Your task to perform on an android device: Go to network settings Image 0: 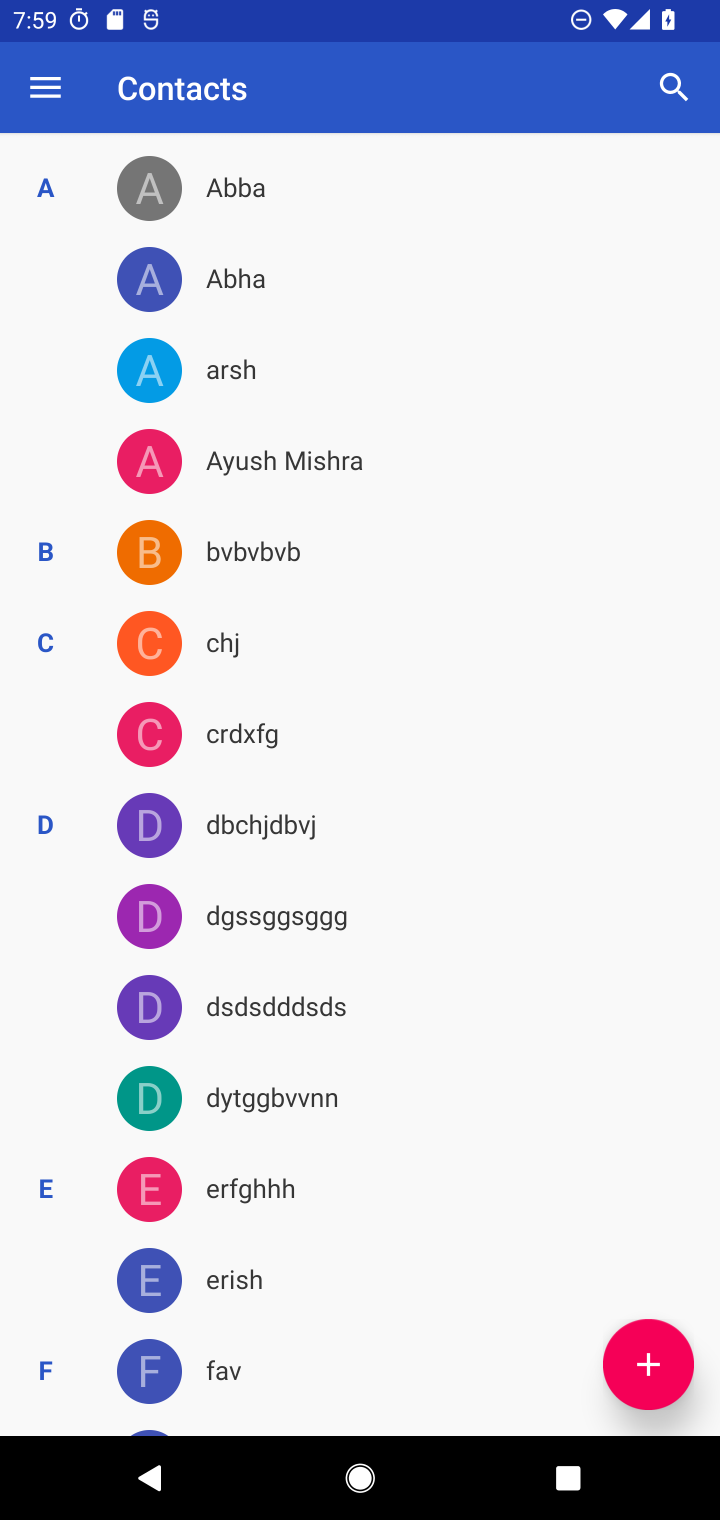
Step 0: press home button
Your task to perform on an android device: Go to network settings Image 1: 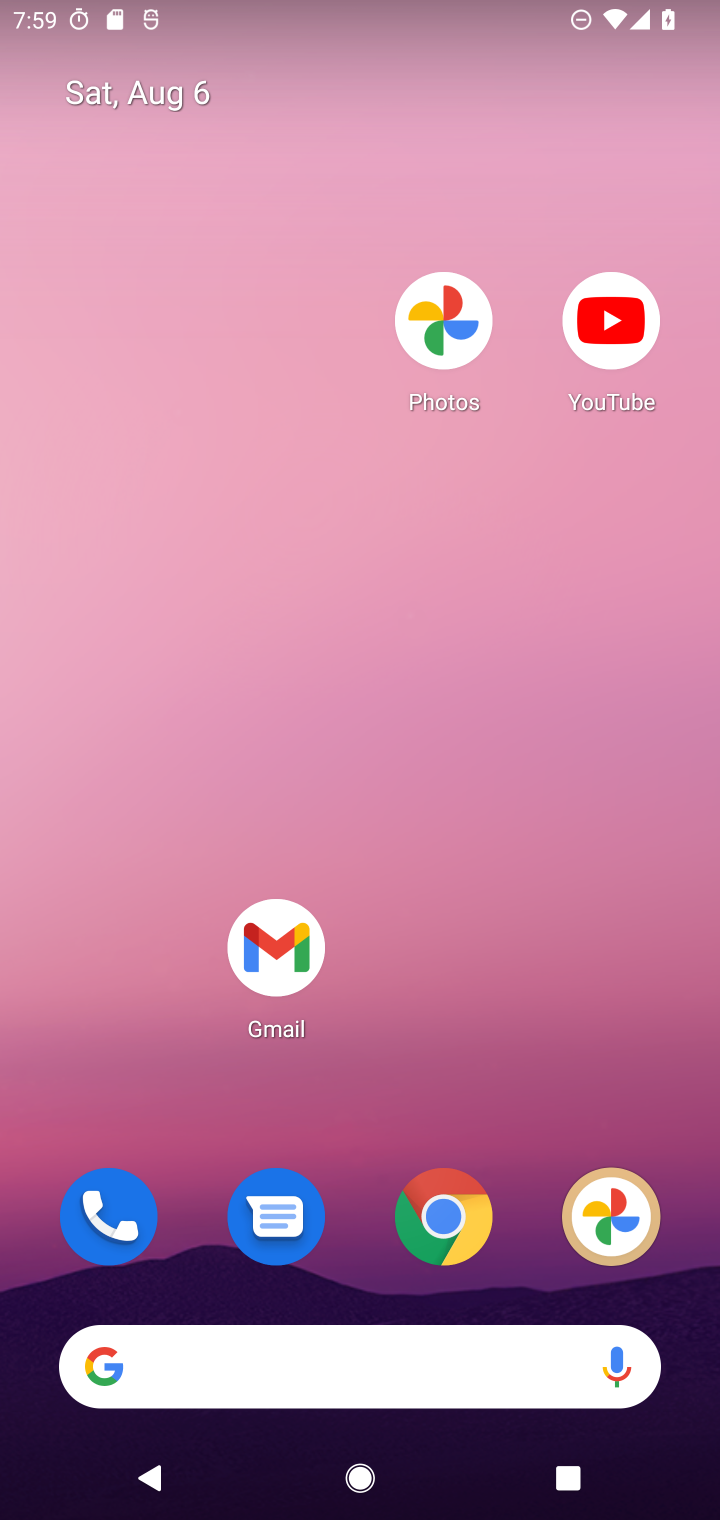
Step 1: drag from (549, 1042) to (560, 11)
Your task to perform on an android device: Go to network settings Image 2: 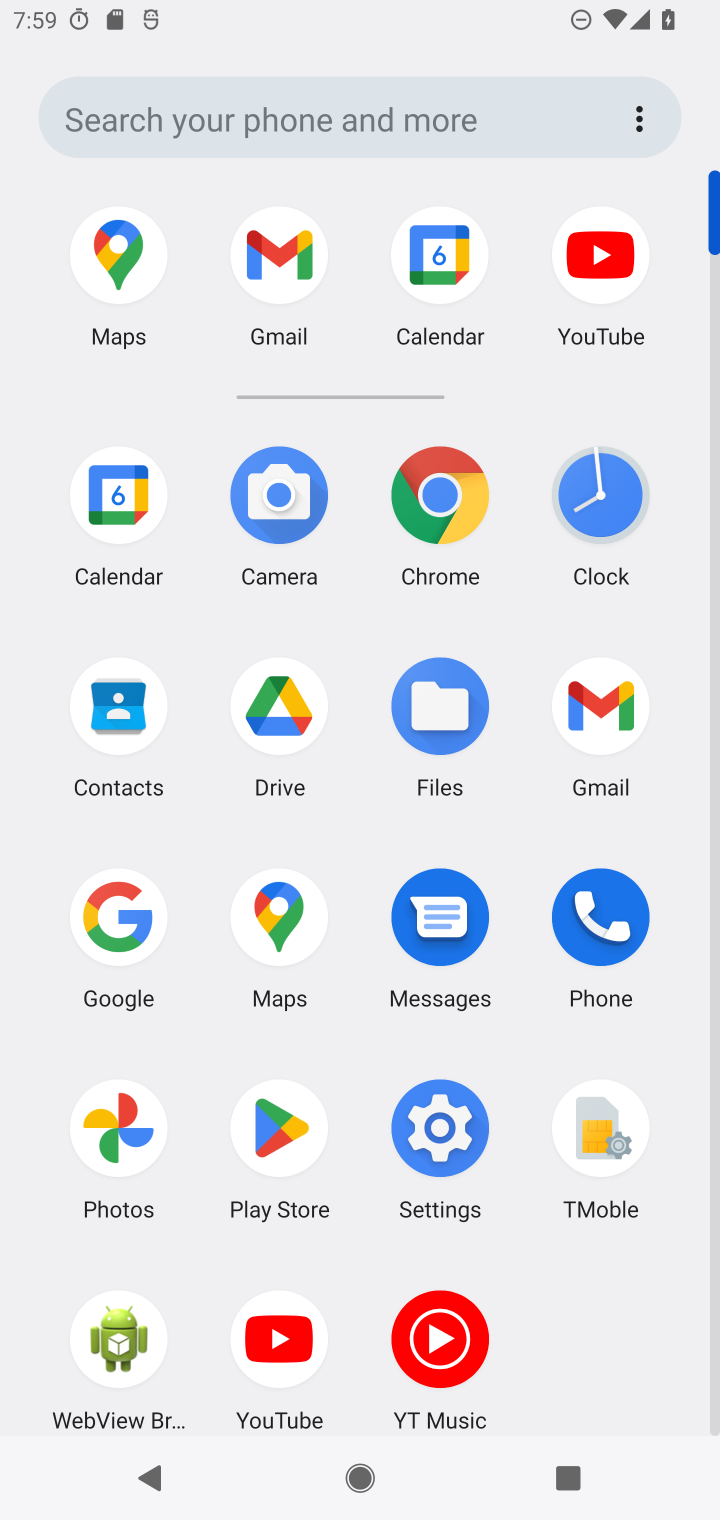
Step 2: click (447, 1142)
Your task to perform on an android device: Go to network settings Image 3: 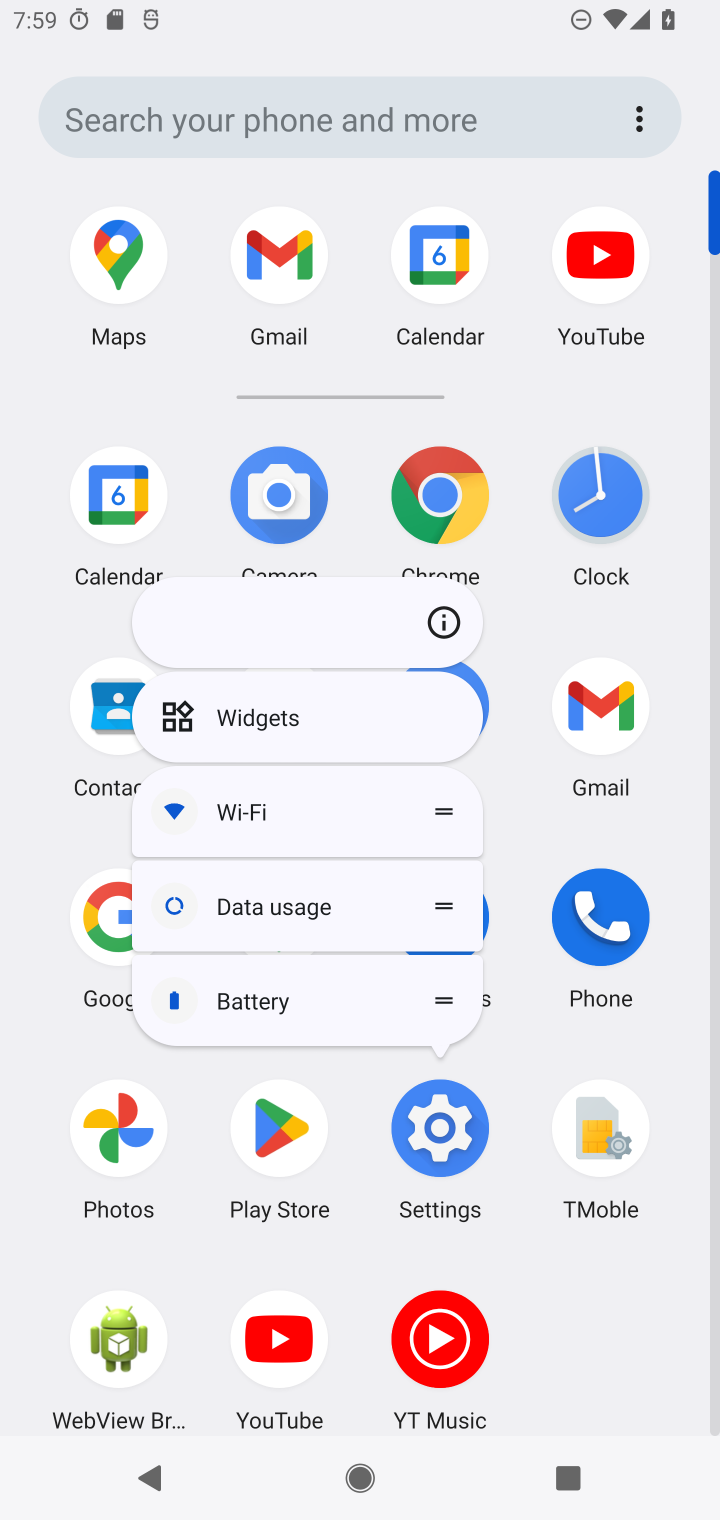
Step 3: click (447, 1141)
Your task to perform on an android device: Go to network settings Image 4: 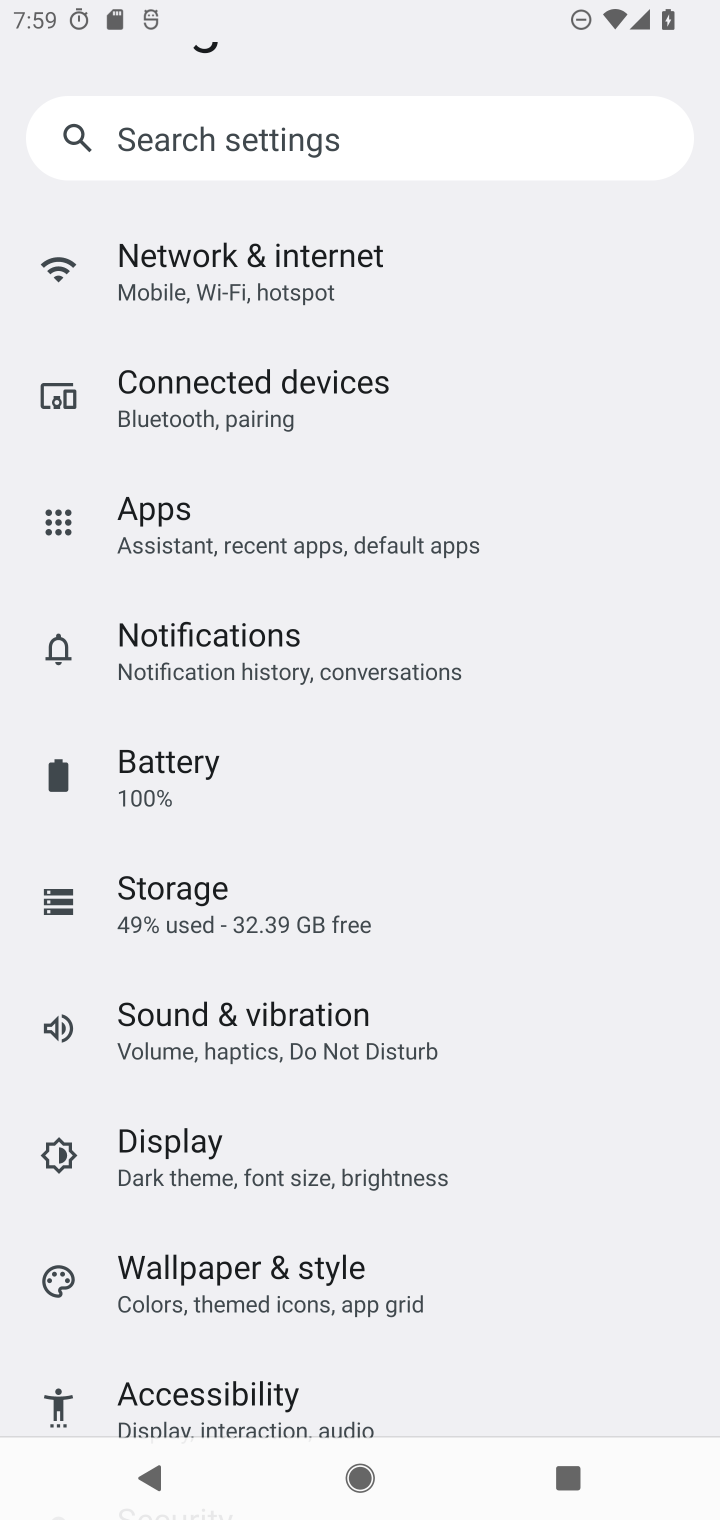
Step 4: click (300, 293)
Your task to perform on an android device: Go to network settings Image 5: 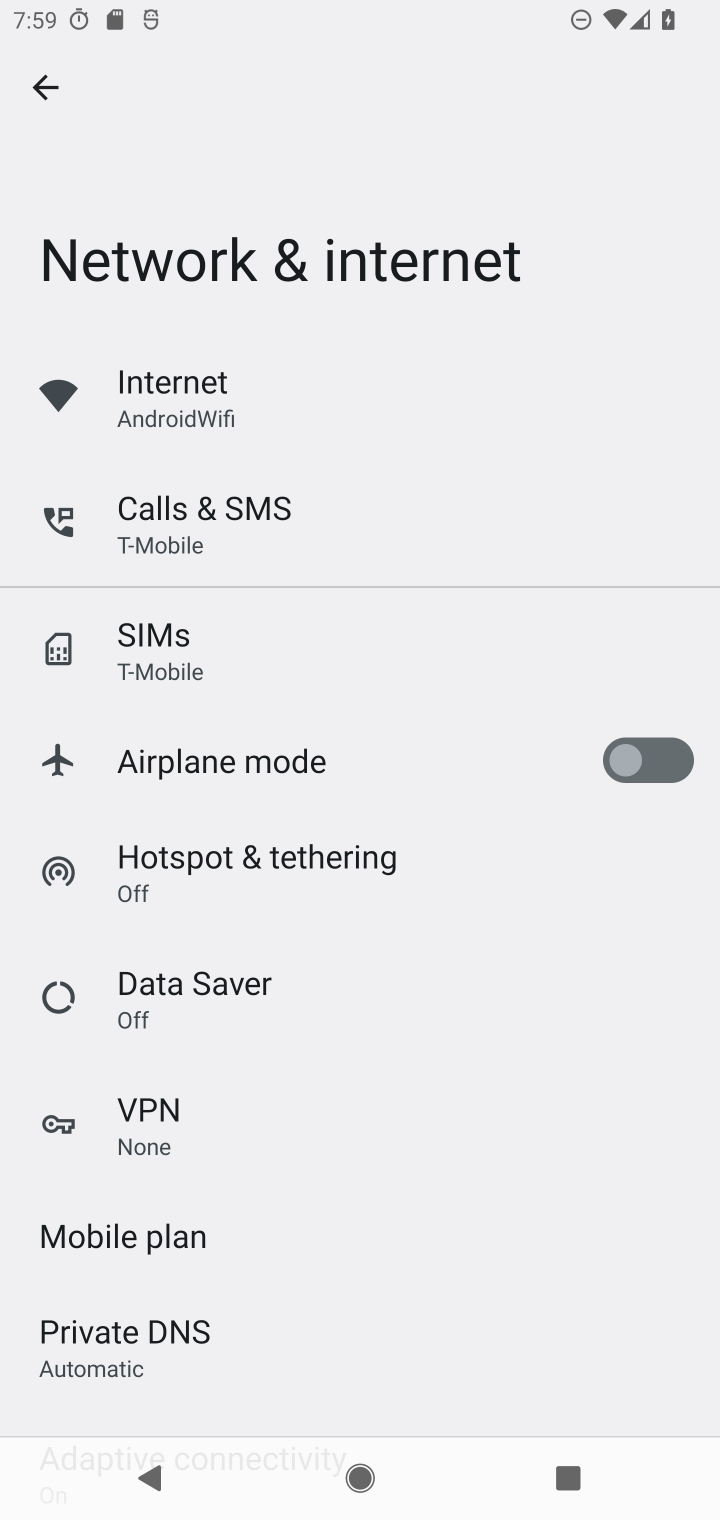
Step 5: task complete